Your task to perform on an android device: Go to display settings Image 0: 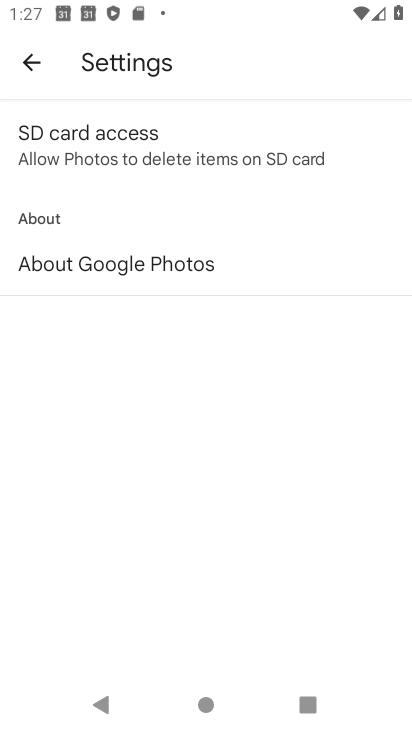
Step 0: click (304, 481)
Your task to perform on an android device: Go to display settings Image 1: 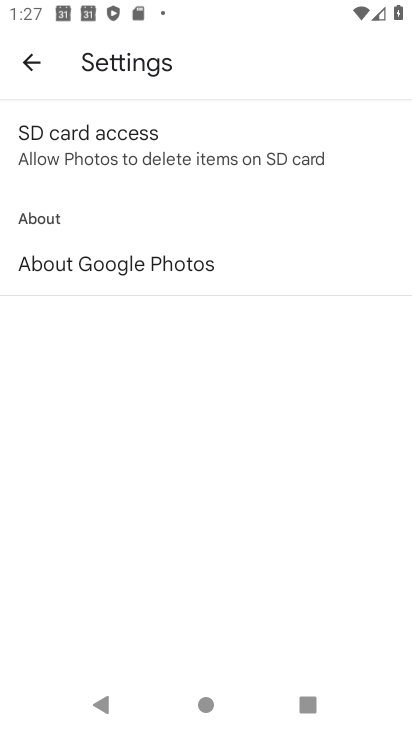
Step 1: click (410, 457)
Your task to perform on an android device: Go to display settings Image 2: 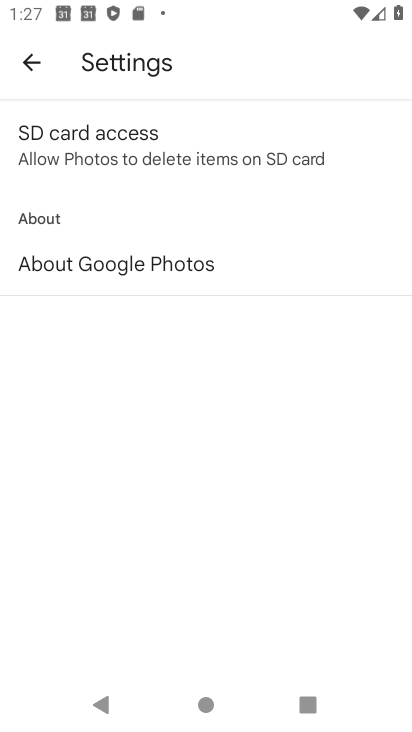
Step 2: press home button
Your task to perform on an android device: Go to display settings Image 3: 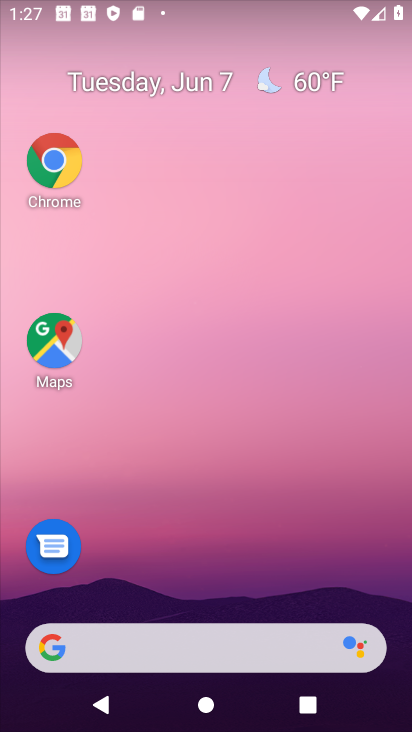
Step 3: drag from (238, 306) to (267, 181)
Your task to perform on an android device: Go to display settings Image 4: 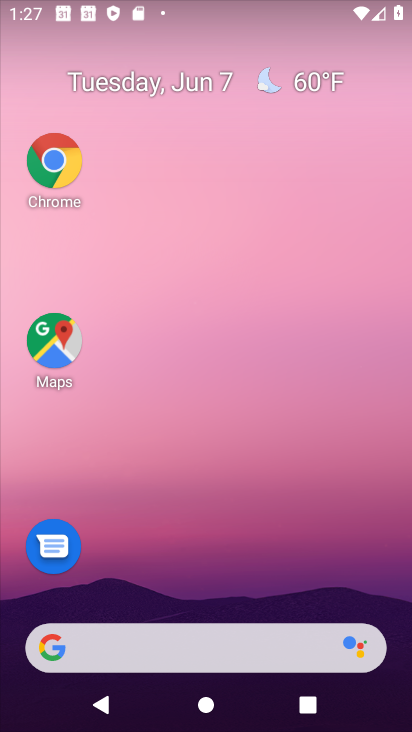
Step 4: drag from (159, 538) to (245, 51)
Your task to perform on an android device: Go to display settings Image 5: 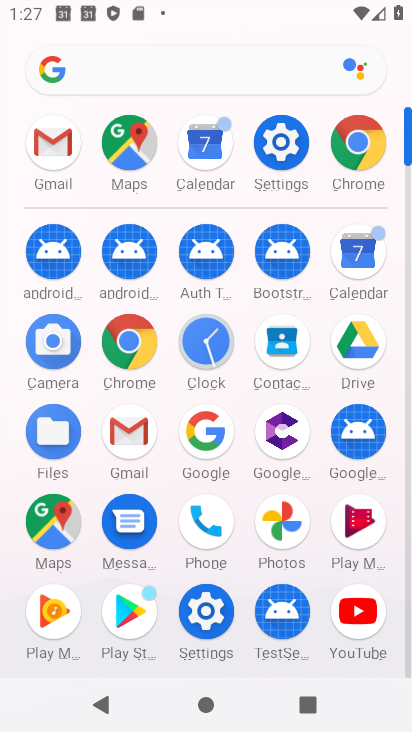
Step 5: click (286, 180)
Your task to perform on an android device: Go to display settings Image 6: 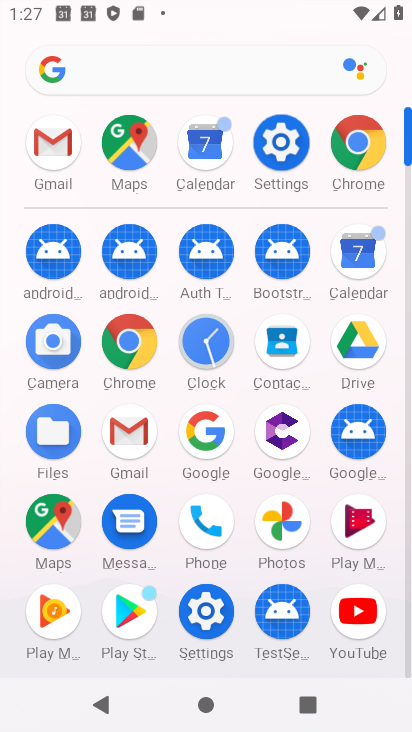
Step 6: click (286, 180)
Your task to perform on an android device: Go to display settings Image 7: 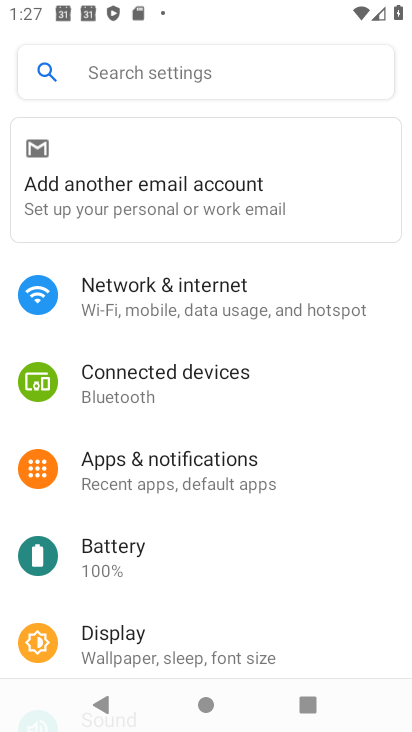
Step 7: drag from (233, 586) to (317, 123)
Your task to perform on an android device: Go to display settings Image 8: 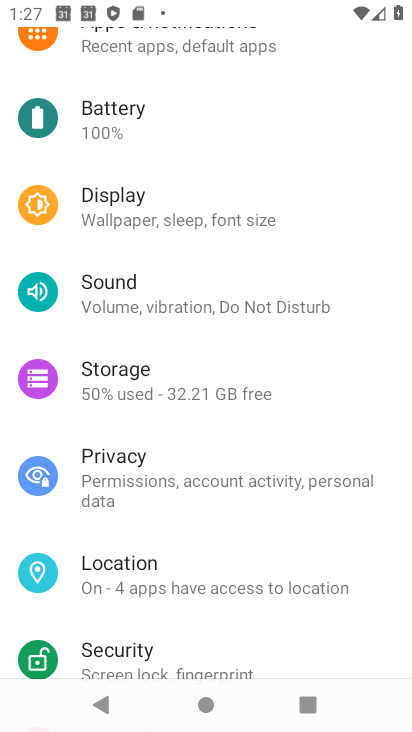
Step 8: click (129, 203)
Your task to perform on an android device: Go to display settings Image 9: 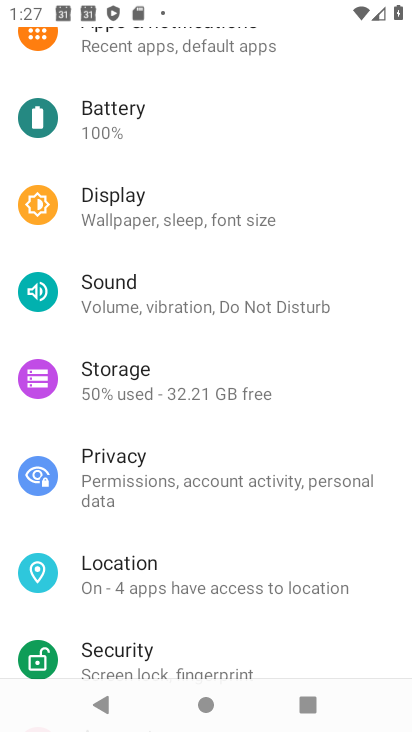
Step 9: click (128, 203)
Your task to perform on an android device: Go to display settings Image 10: 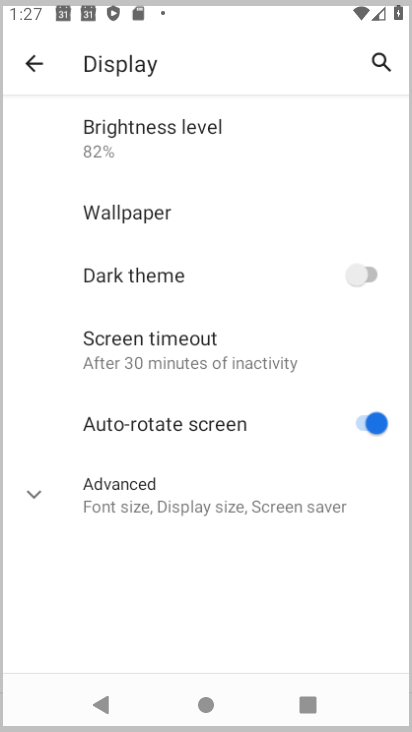
Step 10: task complete